Your task to perform on an android device: move a message to another label in the gmail app Image 0: 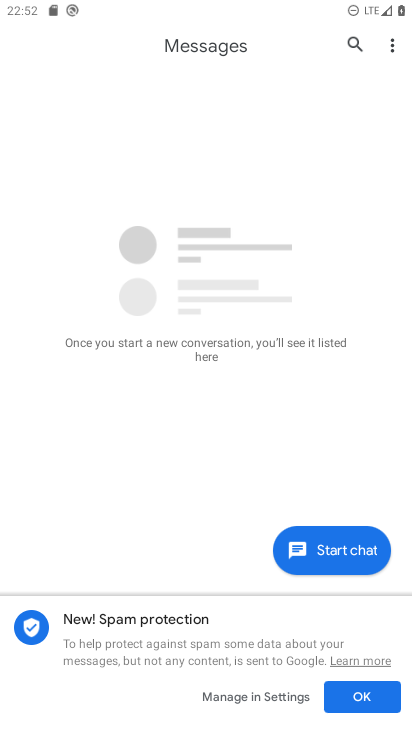
Step 0: press home button
Your task to perform on an android device: move a message to another label in the gmail app Image 1: 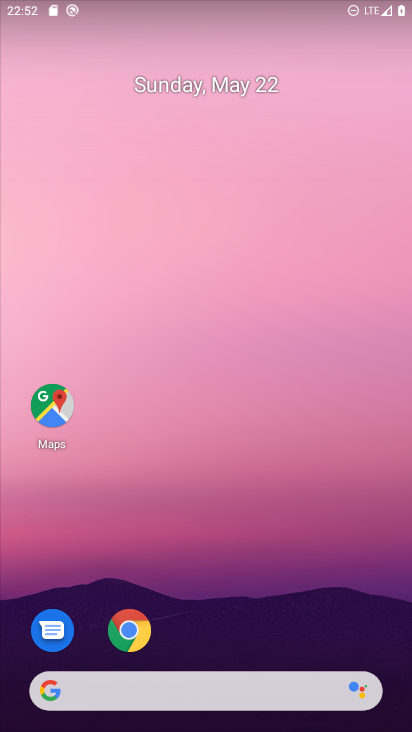
Step 1: drag from (147, 679) to (308, 237)
Your task to perform on an android device: move a message to another label in the gmail app Image 2: 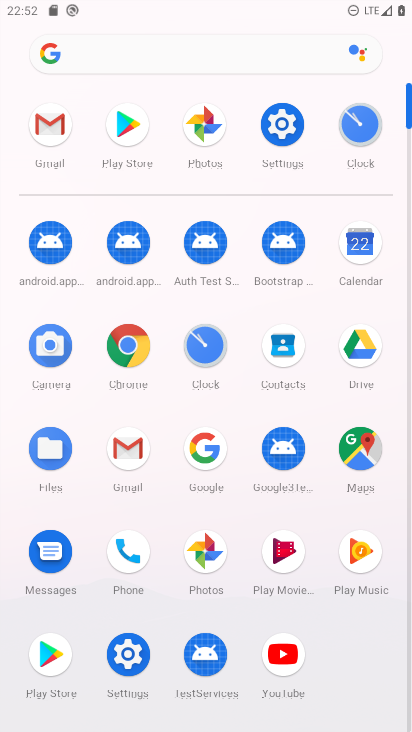
Step 2: click (136, 465)
Your task to perform on an android device: move a message to another label in the gmail app Image 3: 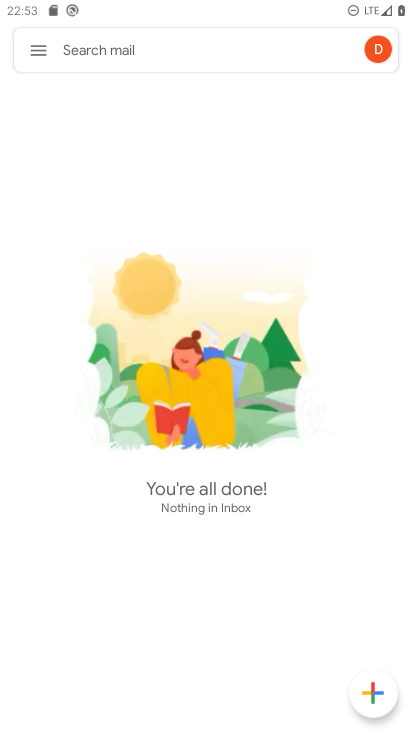
Step 3: task complete